Your task to perform on an android device: empty trash in the gmail app Image 0: 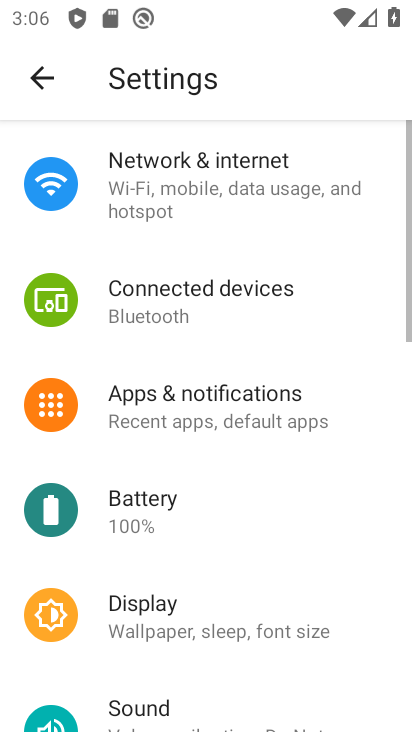
Step 0: press back button
Your task to perform on an android device: empty trash in the gmail app Image 1: 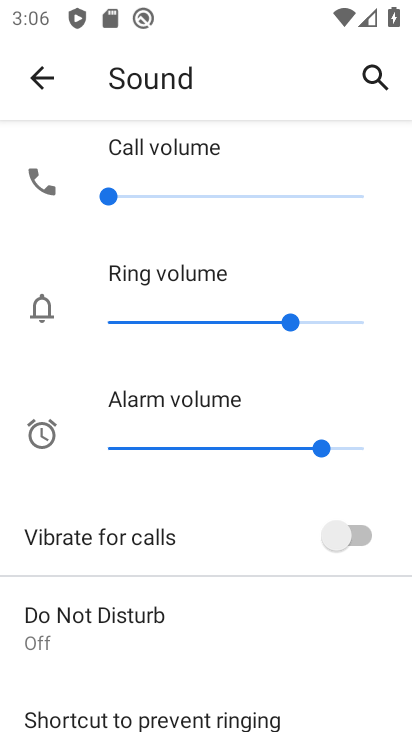
Step 1: press back button
Your task to perform on an android device: empty trash in the gmail app Image 2: 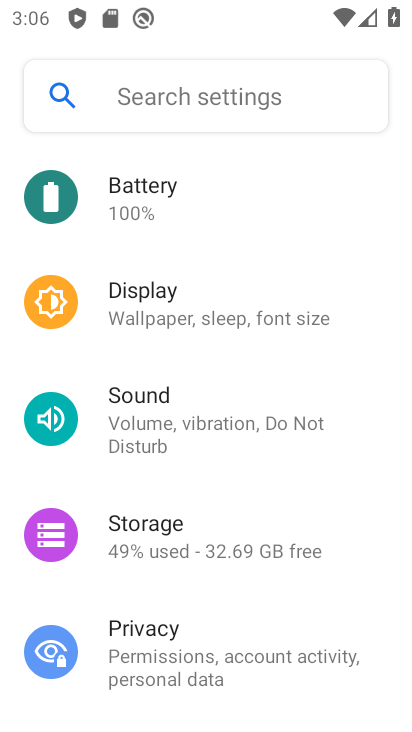
Step 2: press back button
Your task to perform on an android device: empty trash in the gmail app Image 3: 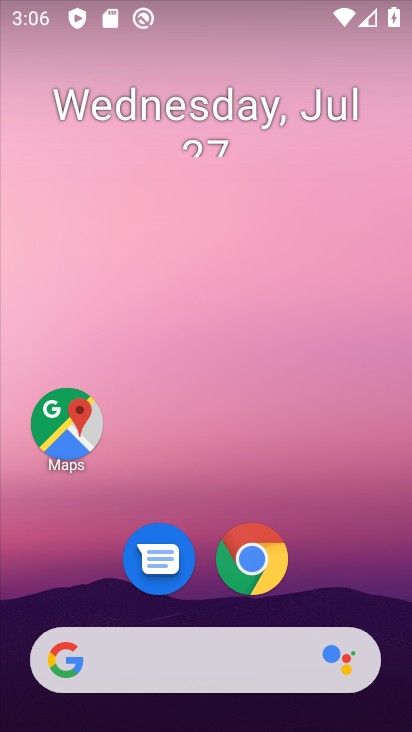
Step 3: drag from (134, 602) to (248, 78)
Your task to perform on an android device: empty trash in the gmail app Image 4: 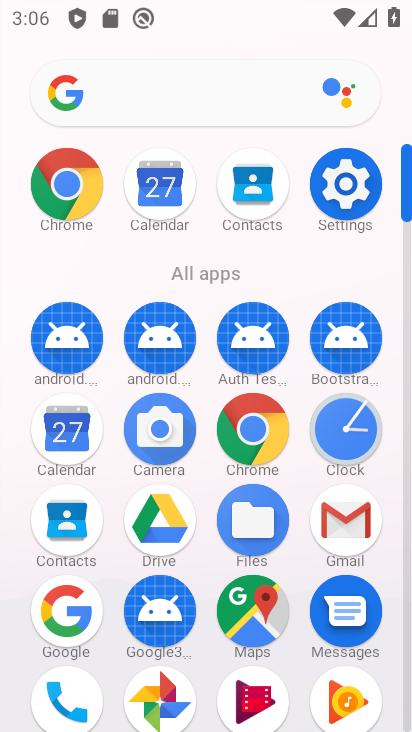
Step 4: click (335, 515)
Your task to perform on an android device: empty trash in the gmail app Image 5: 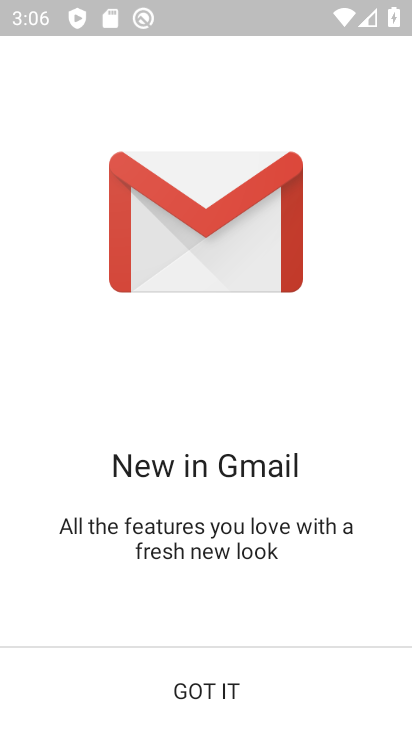
Step 5: click (188, 699)
Your task to perform on an android device: empty trash in the gmail app Image 6: 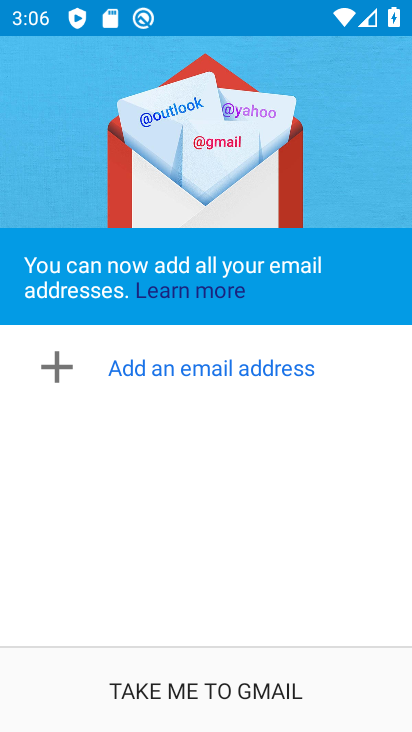
Step 6: click (186, 698)
Your task to perform on an android device: empty trash in the gmail app Image 7: 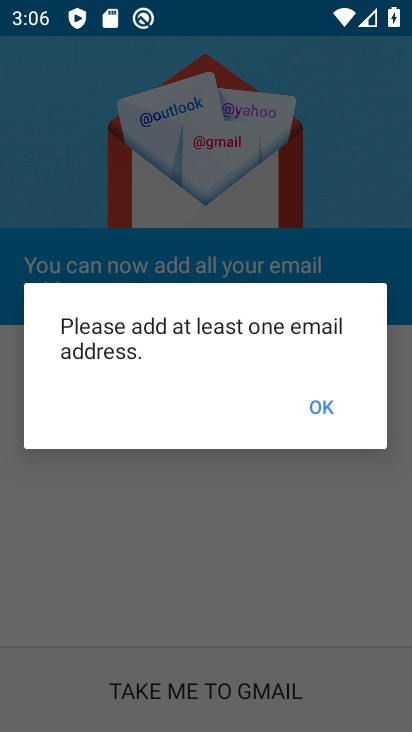
Step 7: click (307, 414)
Your task to perform on an android device: empty trash in the gmail app Image 8: 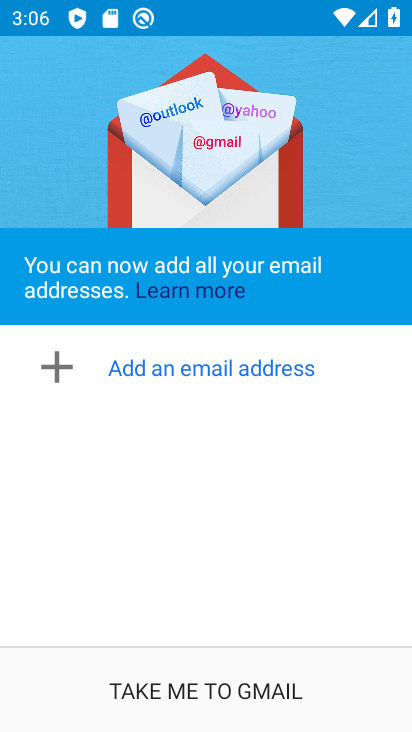
Step 8: task complete